Your task to perform on an android device: Add bose soundsport free to the cart on costco, then select checkout. Image 0: 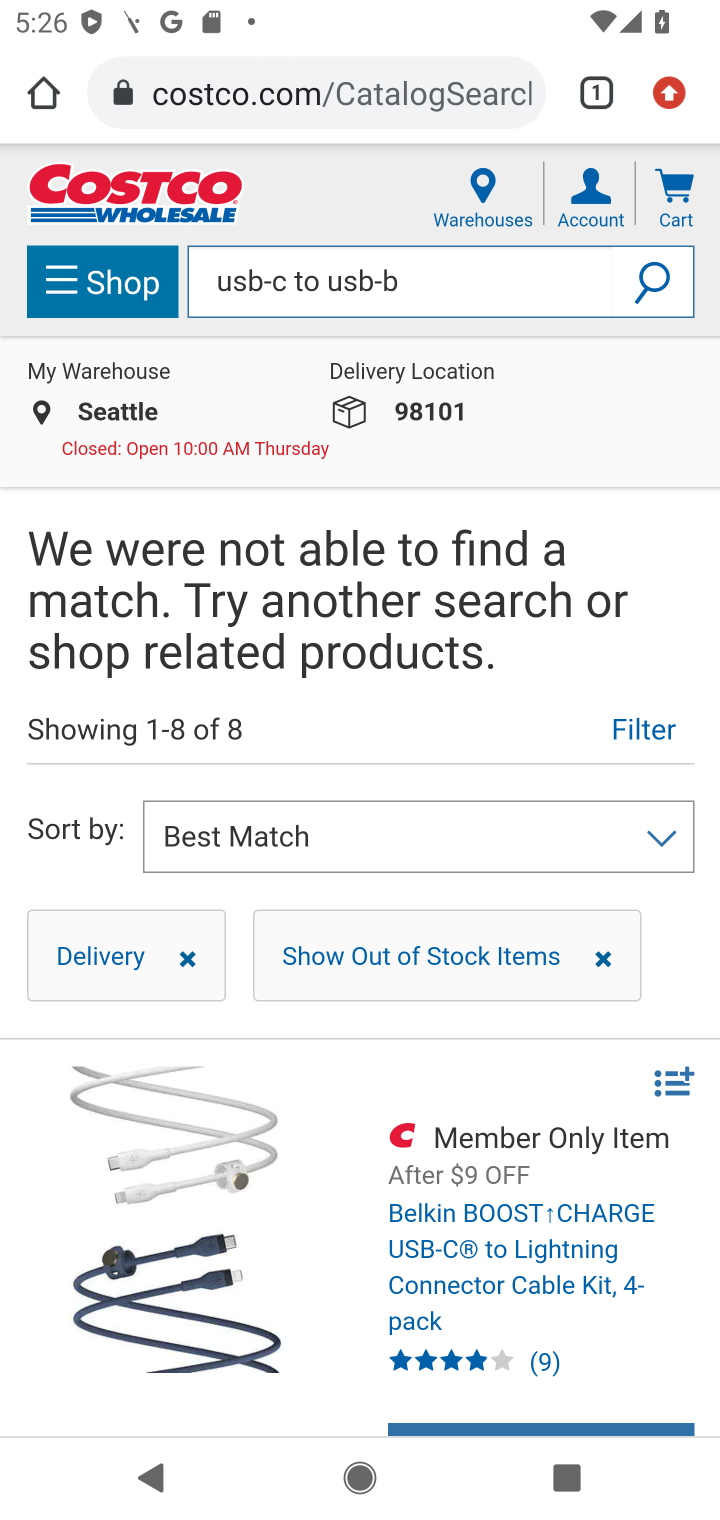
Step 0: press home button
Your task to perform on an android device: Add bose soundsport free to the cart on costco, then select checkout. Image 1: 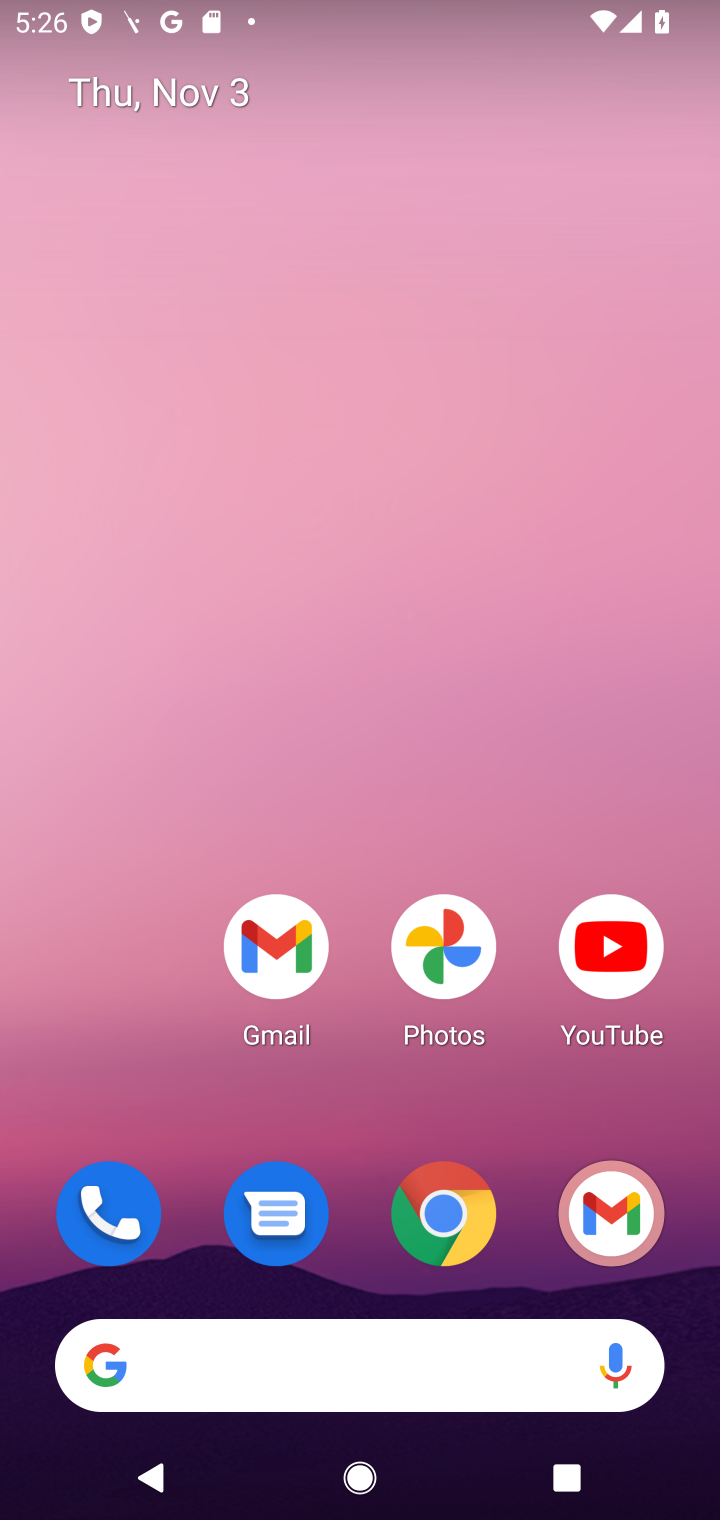
Step 1: click (455, 1221)
Your task to perform on an android device: Add bose soundsport free to the cart on costco, then select checkout. Image 2: 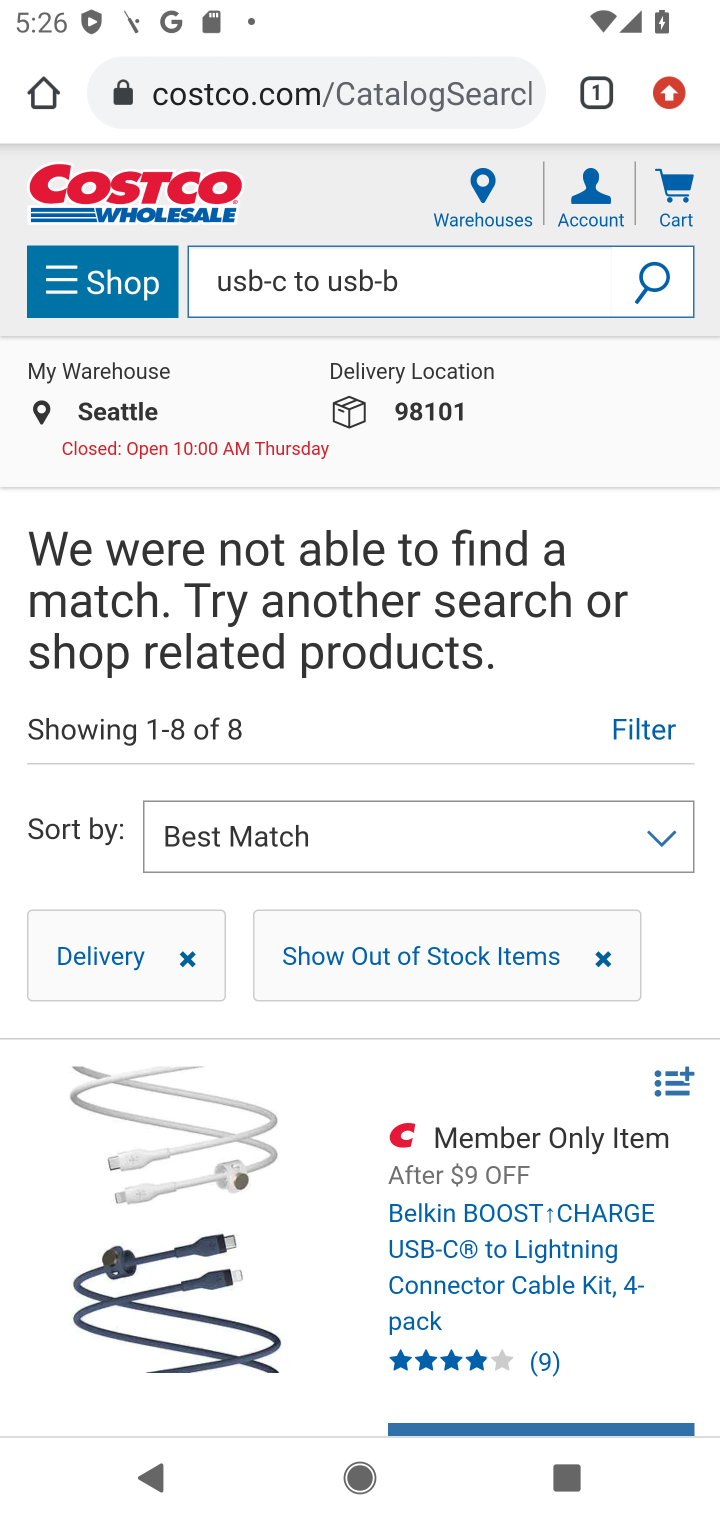
Step 2: click (341, 291)
Your task to perform on an android device: Add bose soundsport free to the cart on costco, then select checkout. Image 3: 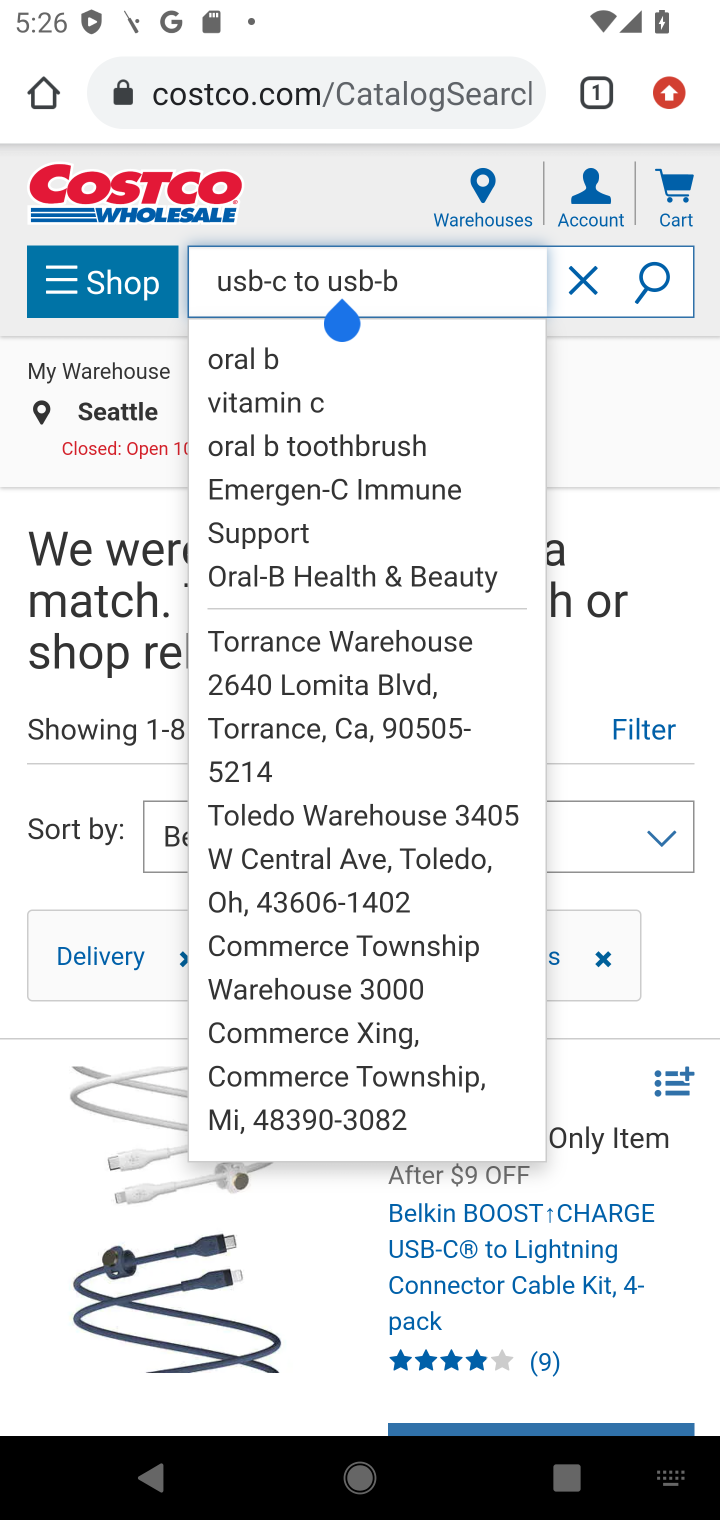
Step 3: click (581, 276)
Your task to perform on an android device: Add bose soundsport free to the cart on costco, then select checkout. Image 4: 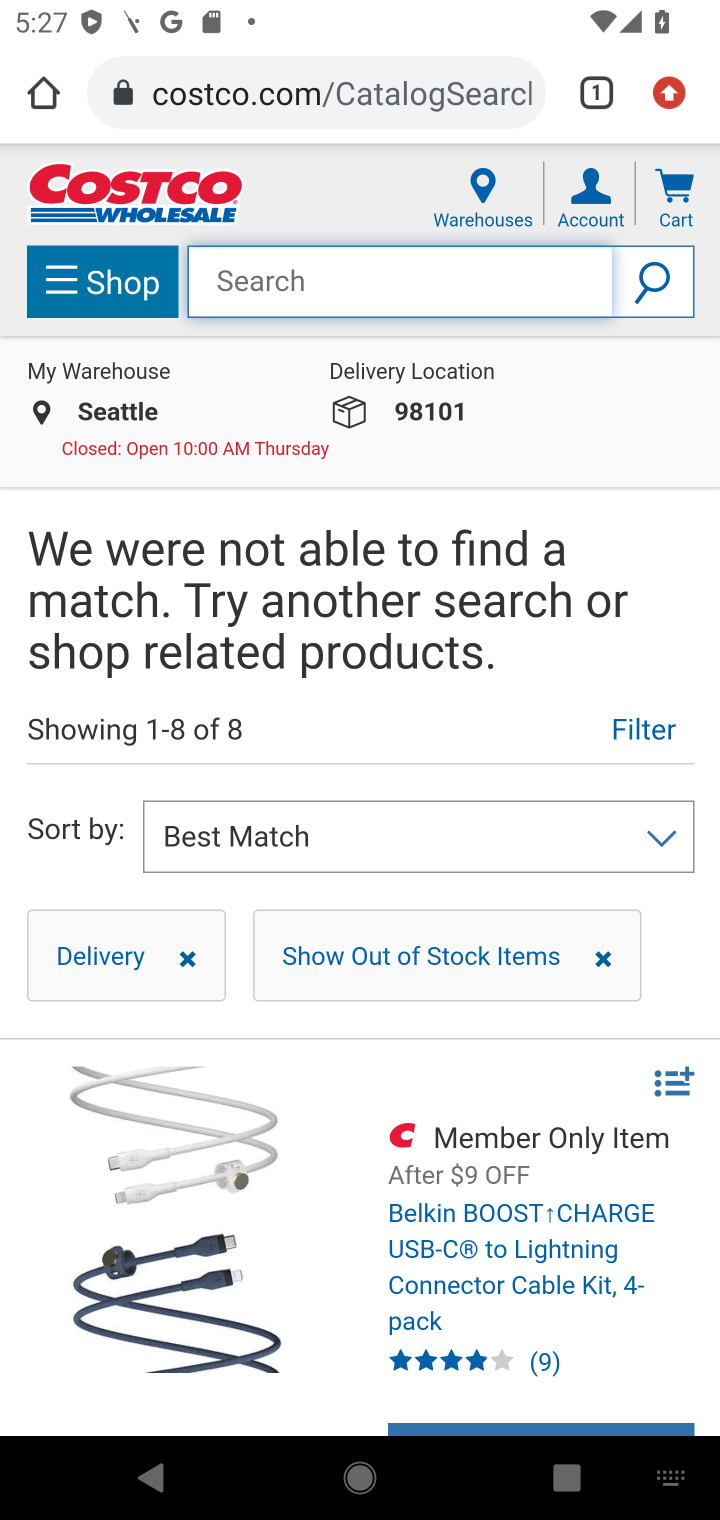
Step 4: type "bose soundsport free"
Your task to perform on an android device: Add bose soundsport free to the cart on costco, then select checkout. Image 5: 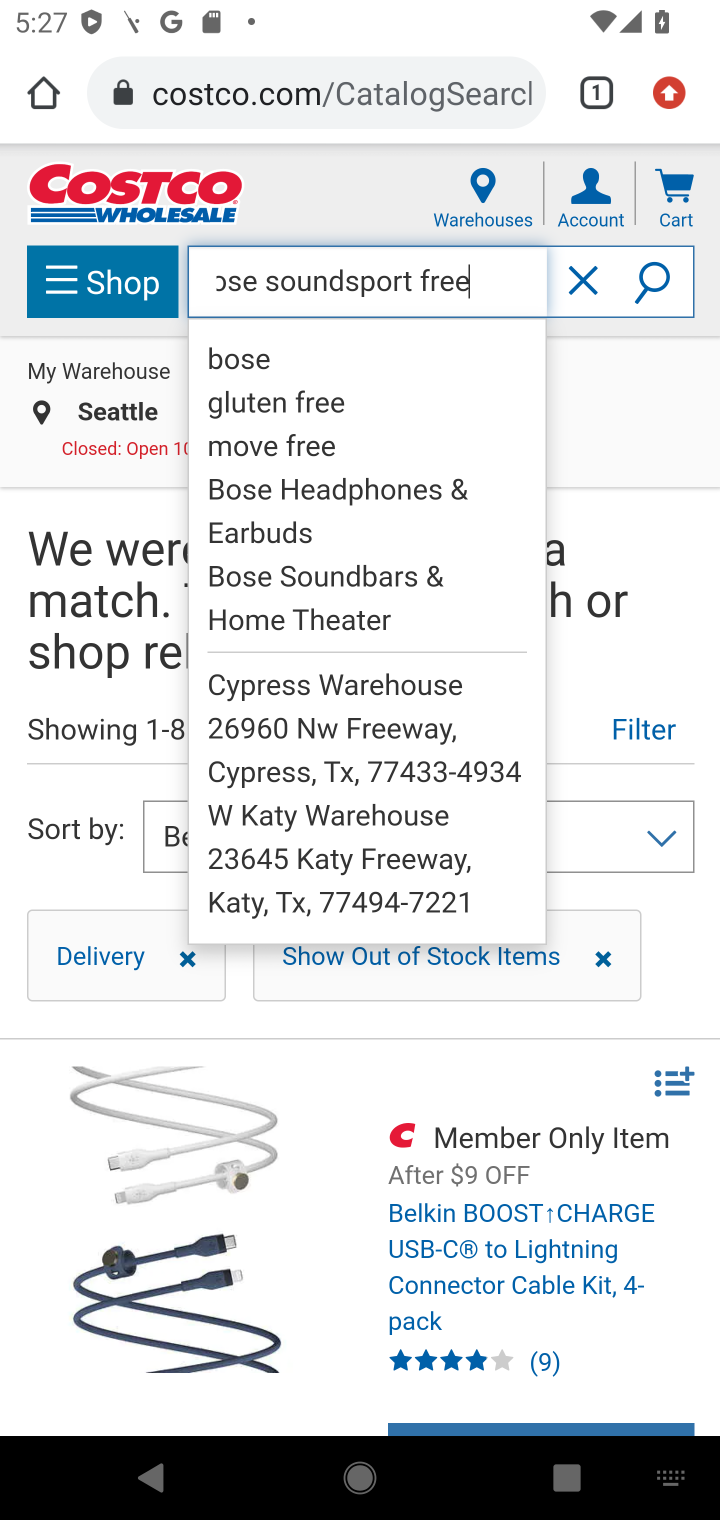
Step 5: click (657, 271)
Your task to perform on an android device: Add bose soundsport free to the cart on costco, then select checkout. Image 6: 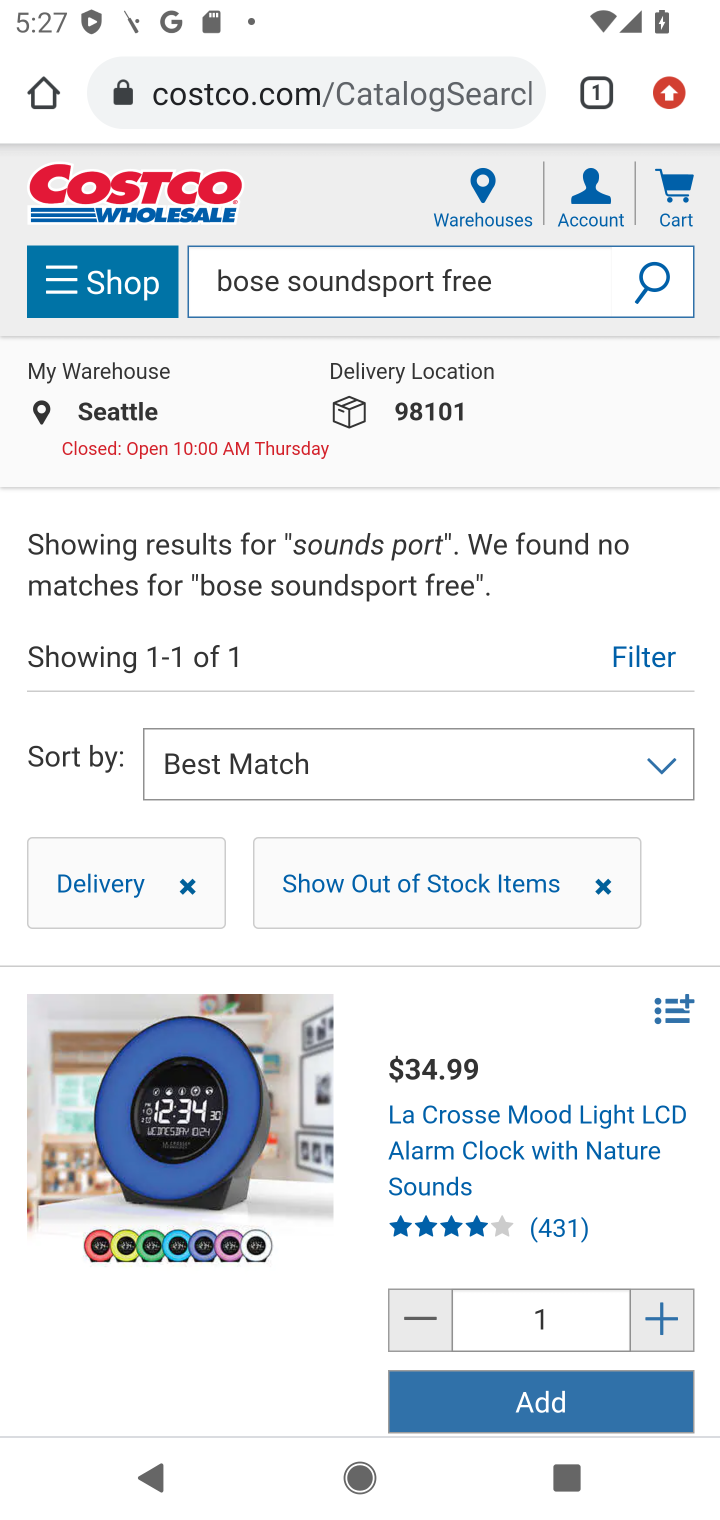
Step 6: task complete